Your task to perform on an android device: What is the recent news? Image 0: 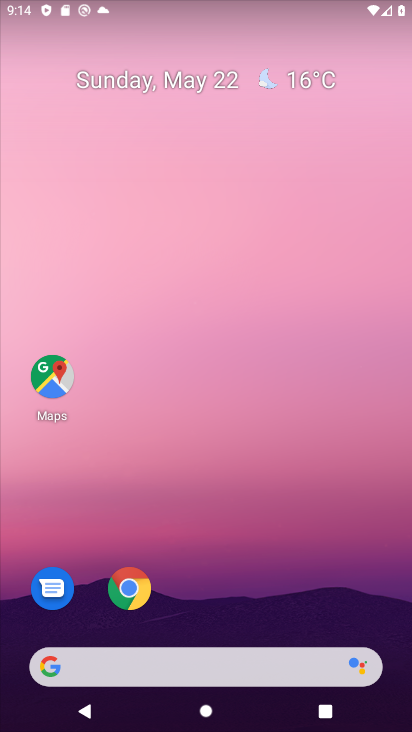
Step 0: drag from (215, 605) to (197, 94)
Your task to perform on an android device: What is the recent news? Image 1: 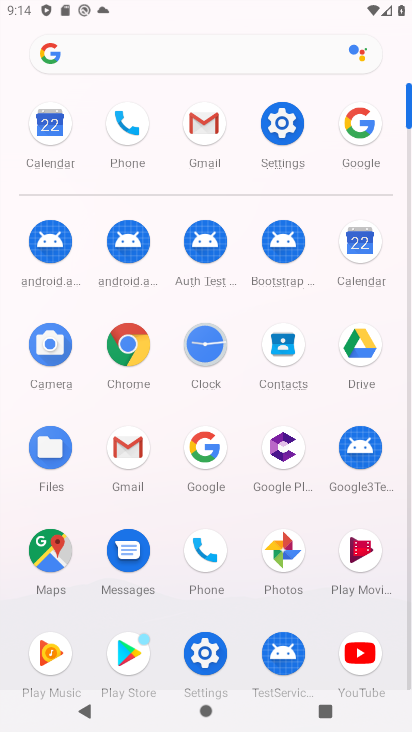
Step 1: click (188, 444)
Your task to perform on an android device: What is the recent news? Image 2: 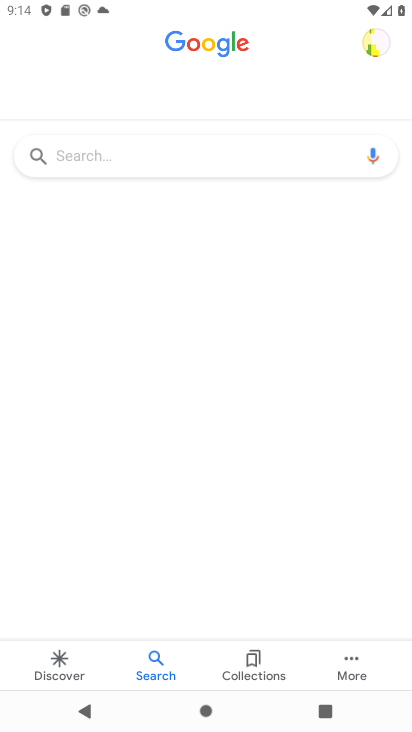
Step 2: click (229, 152)
Your task to perform on an android device: What is the recent news? Image 3: 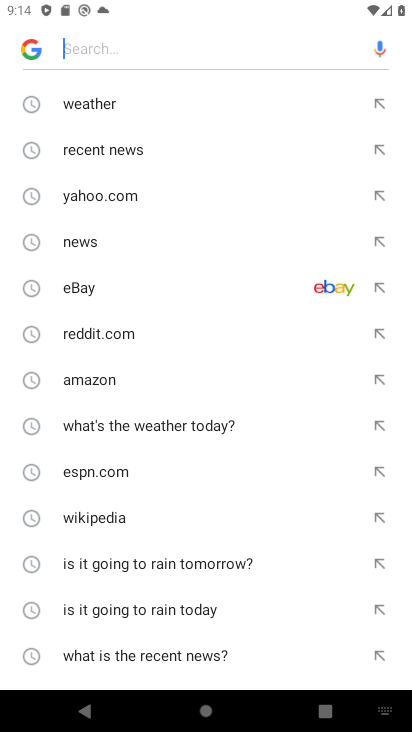
Step 3: click (99, 244)
Your task to perform on an android device: What is the recent news? Image 4: 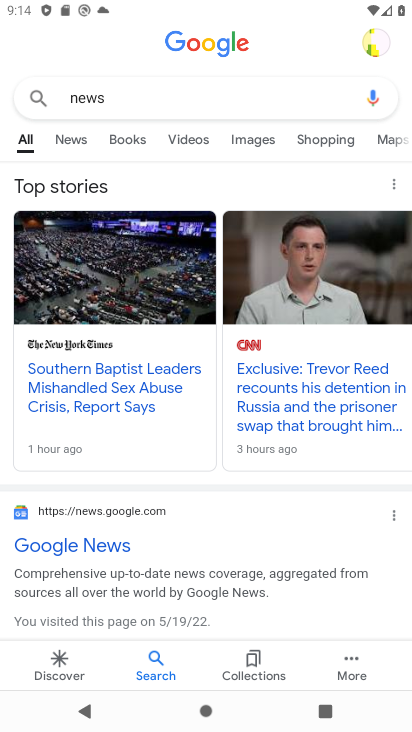
Step 4: click (60, 144)
Your task to perform on an android device: What is the recent news? Image 5: 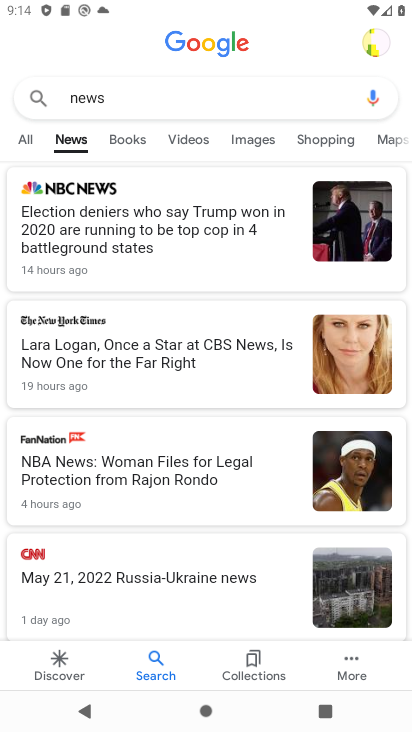
Step 5: task complete